Your task to perform on an android device: turn on wifi Image 0: 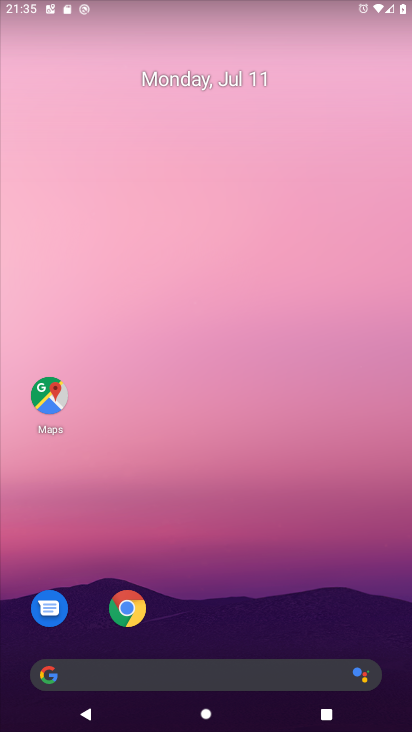
Step 0: drag from (303, 636) to (275, 36)
Your task to perform on an android device: turn on wifi Image 1: 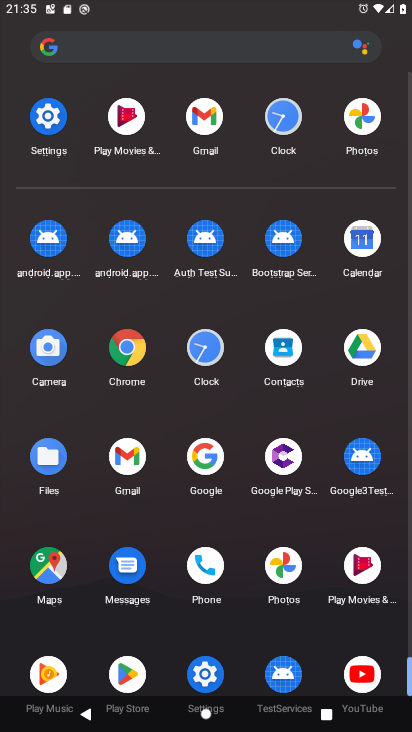
Step 1: click (6, 110)
Your task to perform on an android device: turn on wifi Image 2: 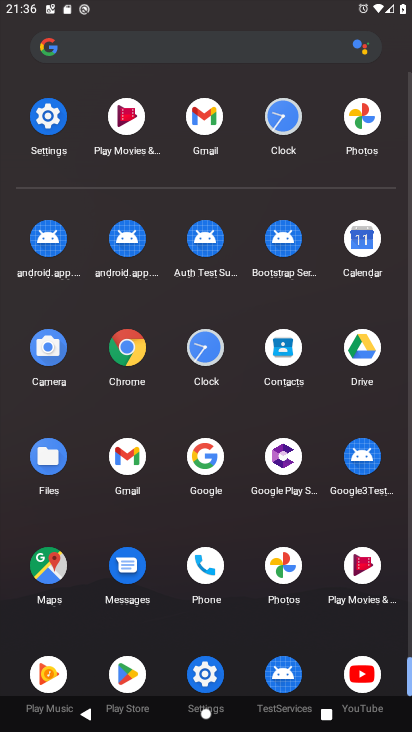
Step 2: click (36, 115)
Your task to perform on an android device: turn on wifi Image 3: 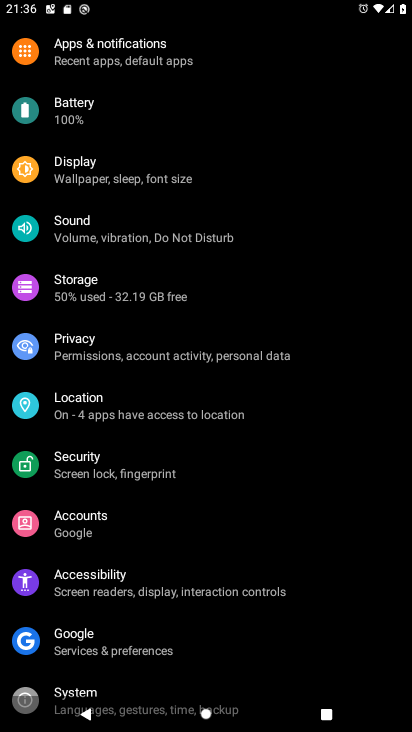
Step 3: click (140, 60)
Your task to perform on an android device: turn on wifi Image 4: 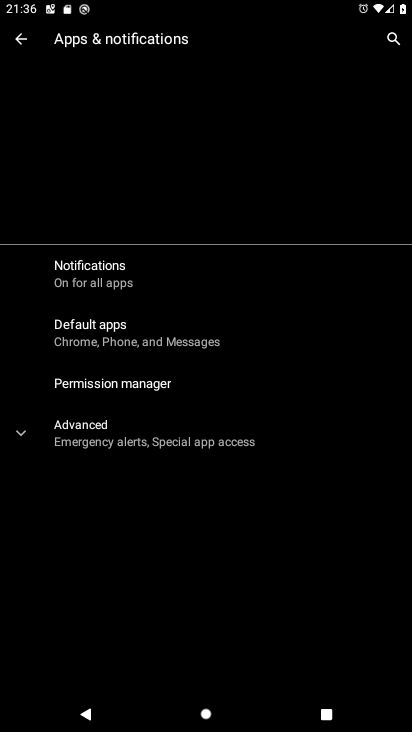
Step 4: press back button
Your task to perform on an android device: turn on wifi Image 5: 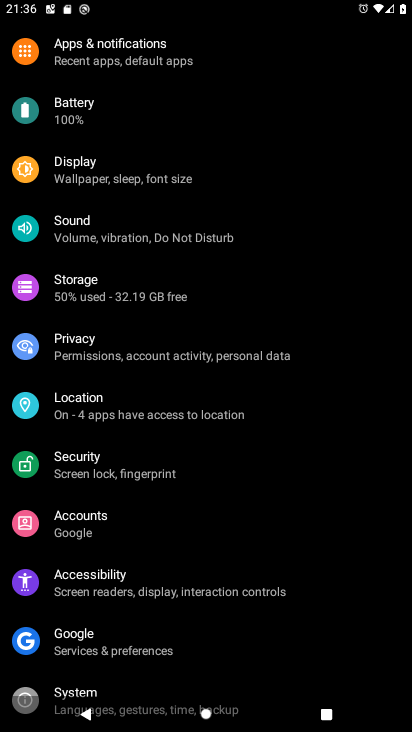
Step 5: drag from (190, 79) to (218, 176)
Your task to perform on an android device: turn on wifi Image 6: 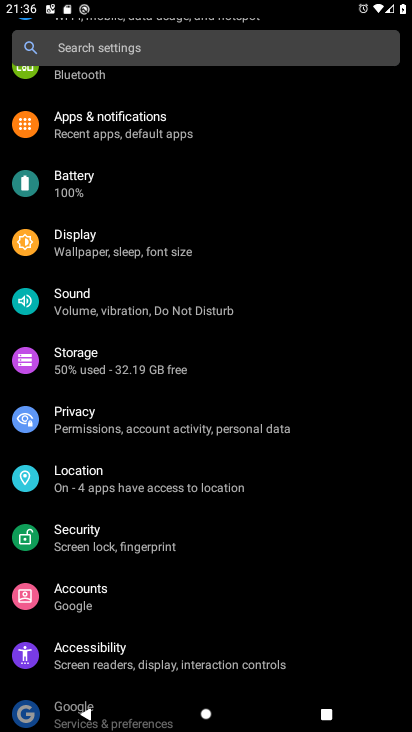
Step 6: click (218, 179)
Your task to perform on an android device: turn on wifi Image 7: 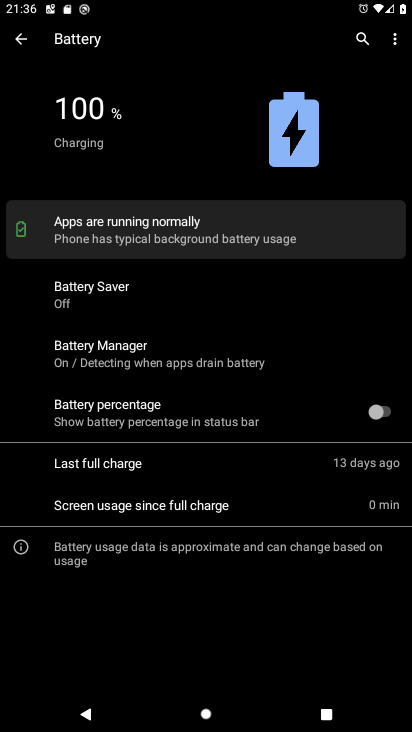
Step 7: click (21, 44)
Your task to perform on an android device: turn on wifi Image 8: 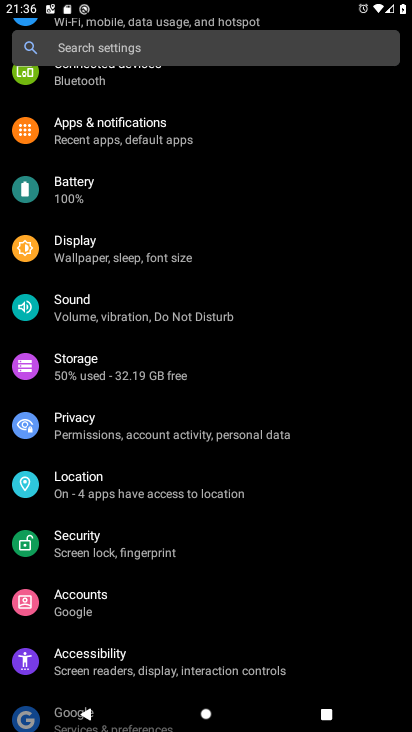
Step 8: click (115, 26)
Your task to perform on an android device: turn on wifi Image 9: 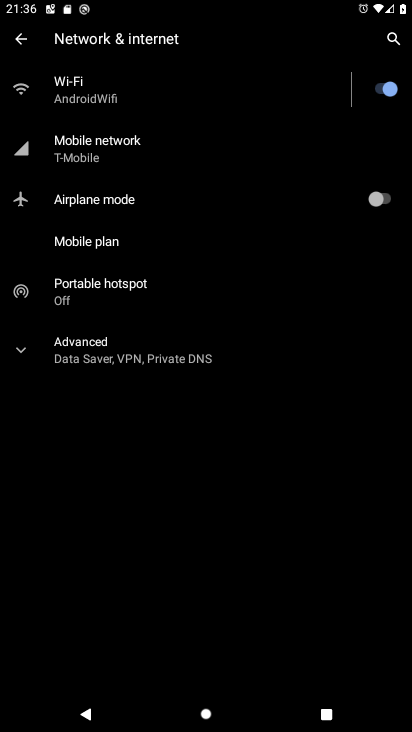
Step 9: click (167, 95)
Your task to perform on an android device: turn on wifi Image 10: 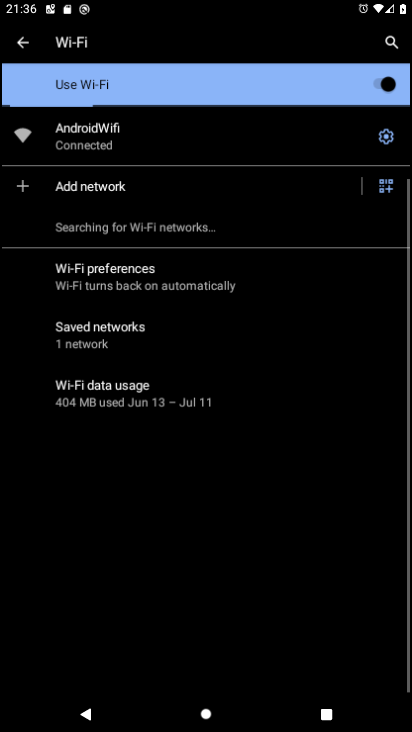
Step 10: task complete